Your task to perform on an android device: turn on notifications settings in the gmail app Image 0: 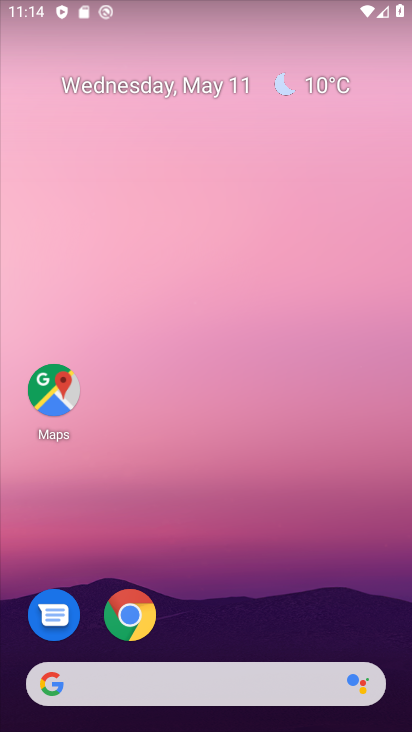
Step 0: drag from (256, 602) to (267, 19)
Your task to perform on an android device: turn on notifications settings in the gmail app Image 1: 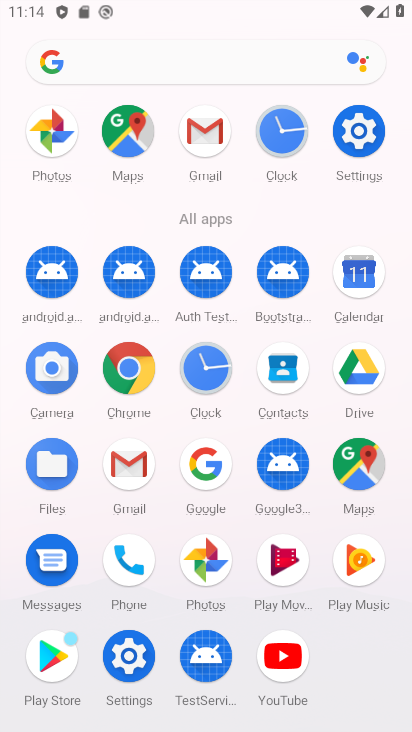
Step 1: click (202, 137)
Your task to perform on an android device: turn on notifications settings in the gmail app Image 2: 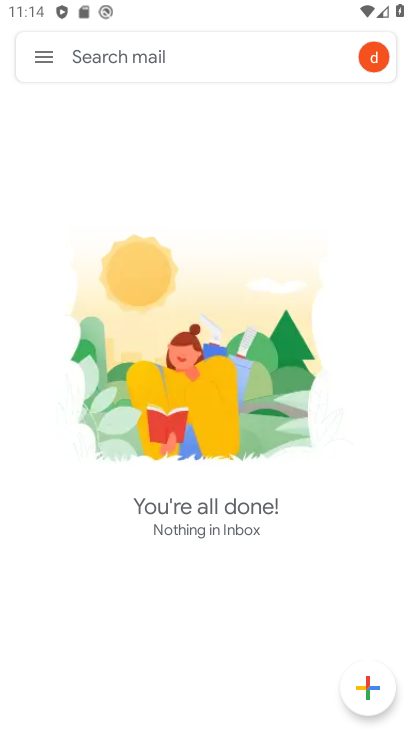
Step 2: click (47, 58)
Your task to perform on an android device: turn on notifications settings in the gmail app Image 3: 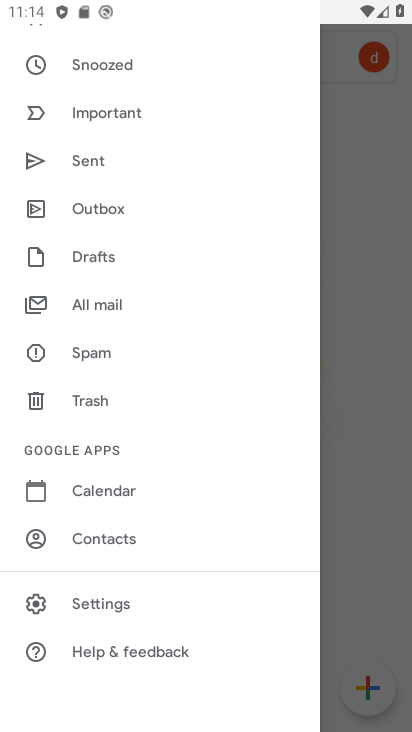
Step 3: click (108, 601)
Your task to perform on an android device: turn on notifications settings in the gmail app Image 4: 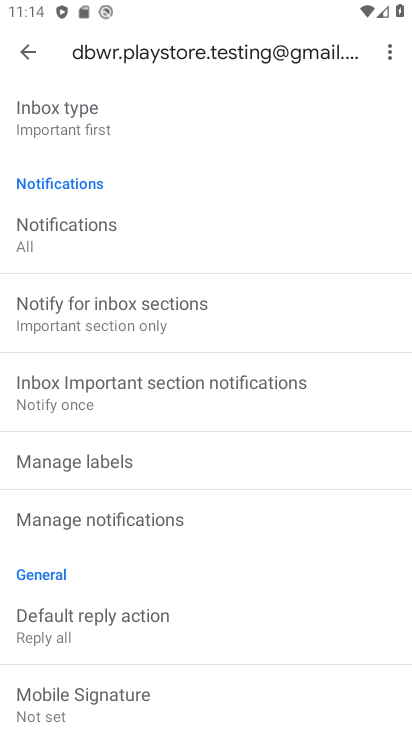
Step 4: click (114, 515)
Your task to perform on an android device: turn on notifications settings in the gmail app Image 5: 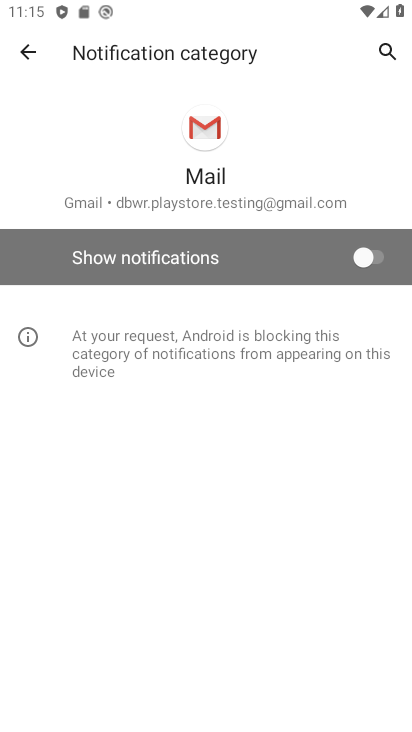
Step 5: click (370, 257)
Your task to perform on an android device: turn on notifications settings in the gmail app Image 6: 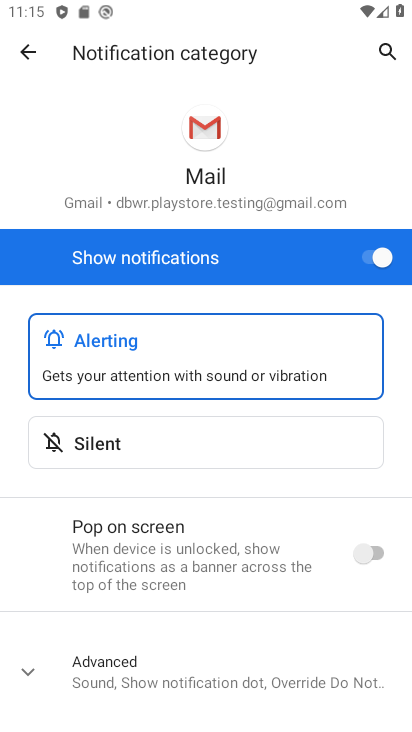
Step 6: task complete